Your task to perform on an android device: Check the settings for the Google Play Music app Image 0: 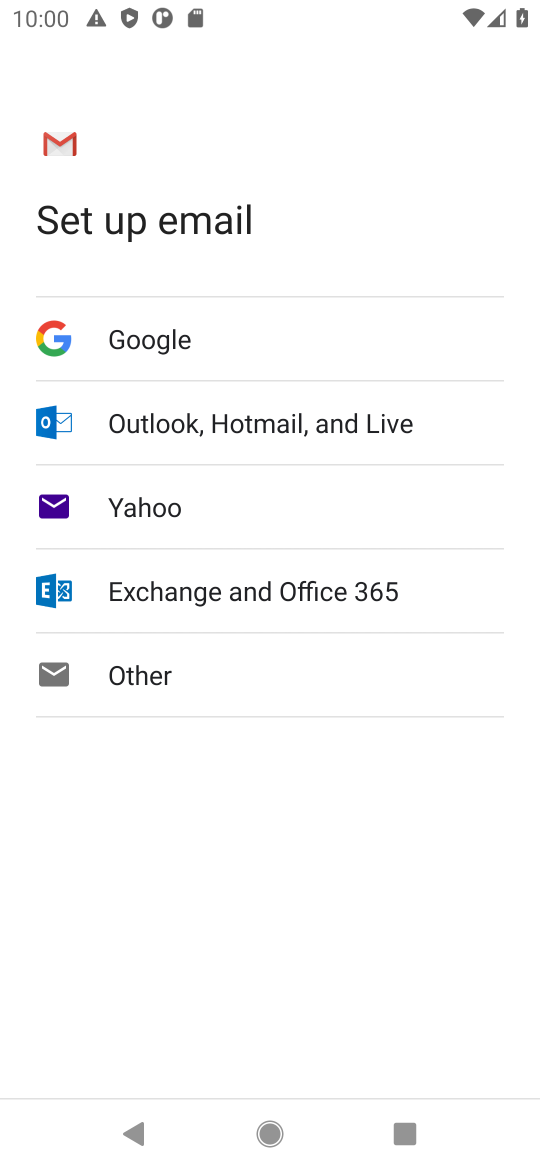
Step 0: press home button
Your task to perform on an android device: Check the settings for the Google Play Music app Image 1: 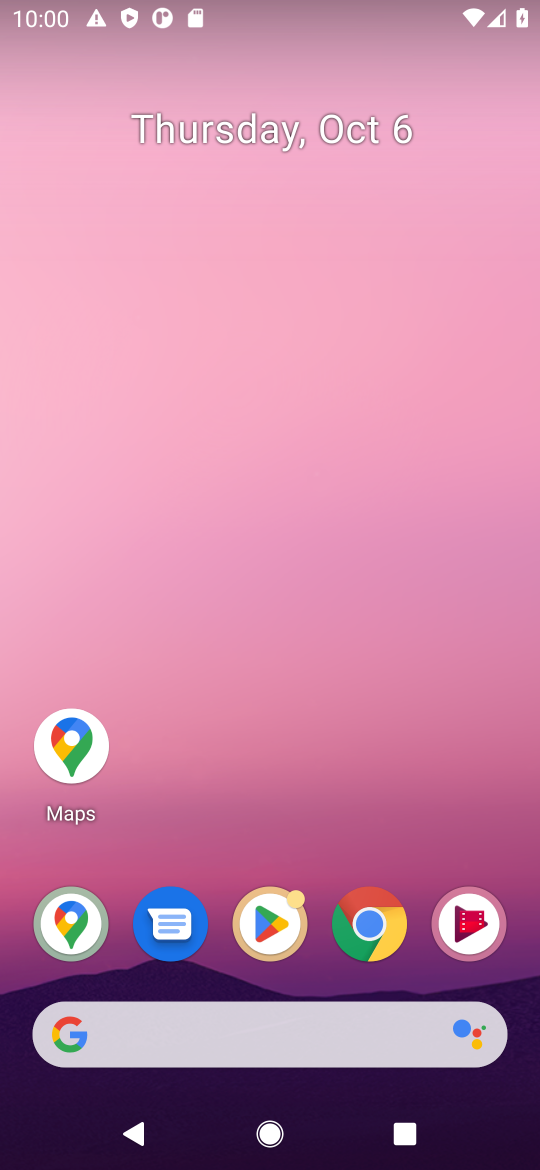
Step 1: drag from (292, 1024) to (402, 297)
Your task to perform on an android device: Check the settings for the Google Play Music app Image 2: 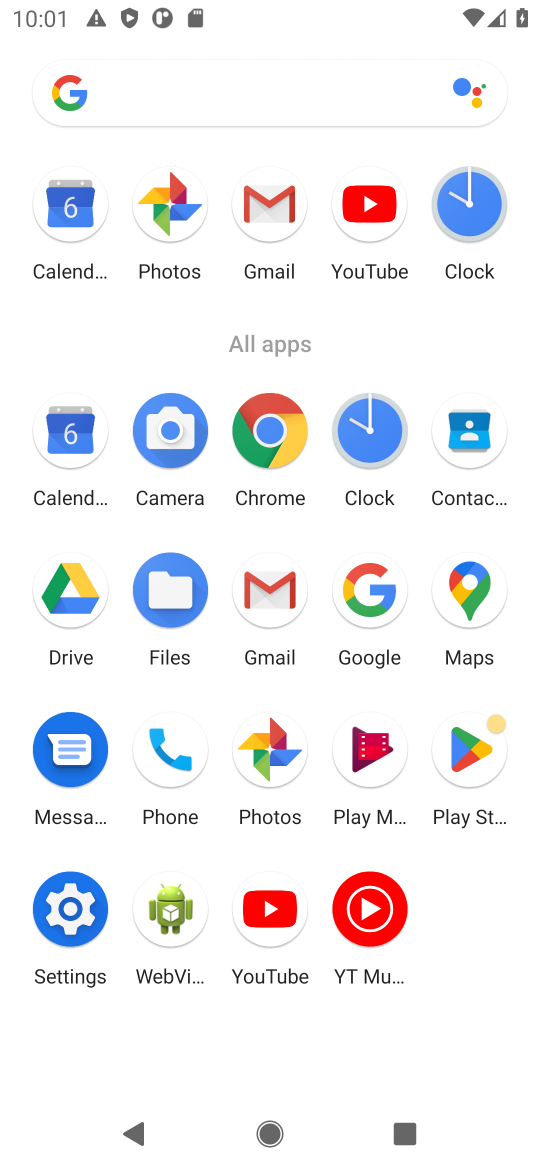
Step 2: click (359, 761)
Your task to perform on an android device: Check the settings for the Google Play Music app Image 3: 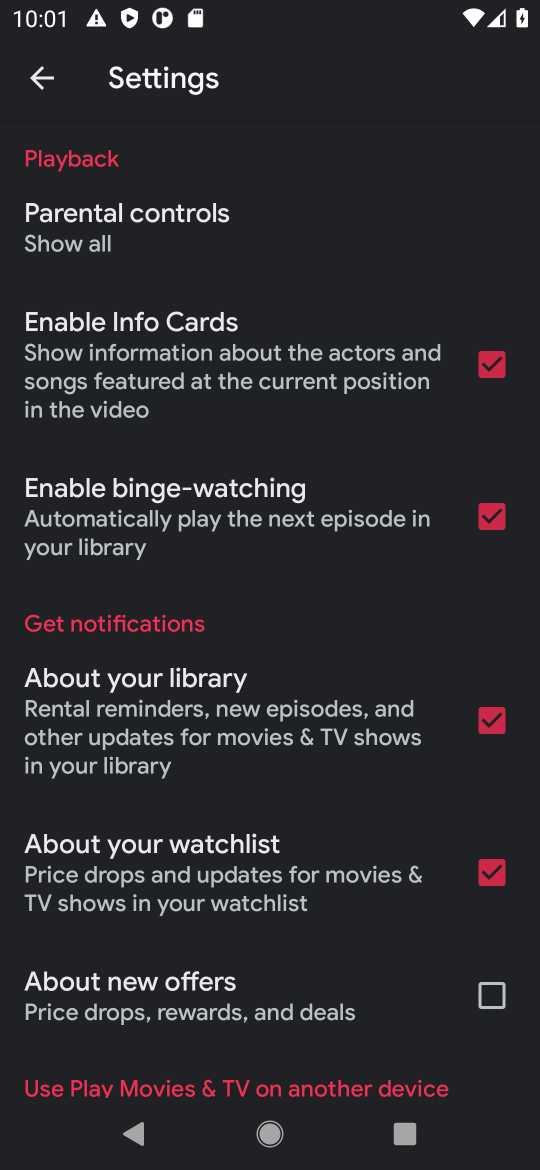
Step 3: click (41, 85)
Your task to perform on an android device: Check the settings for the Google Play Music app Image 4: 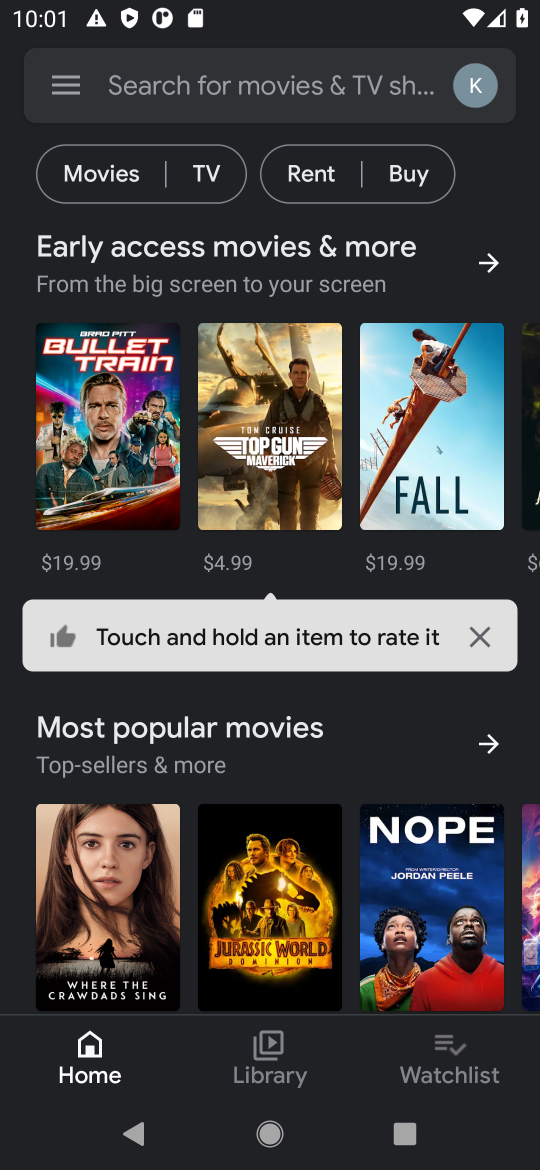
Step 4: task complete